Your task to perform on an android device: turn off picture-in-picture Image 0: 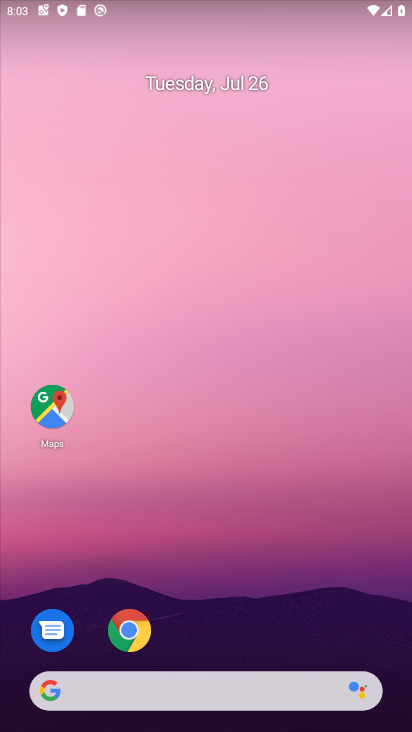
Step 0: drag from (317, 643) to (296, 2)
Your task to perform on an android device: turn off picture-in-picture Image 1: 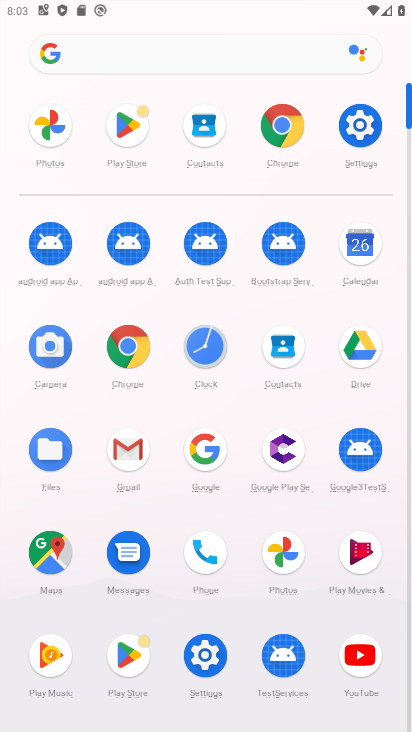
Step 1: click (338, 136)
Your task to perform on an android device: turn off picture-in-picture Image 2: 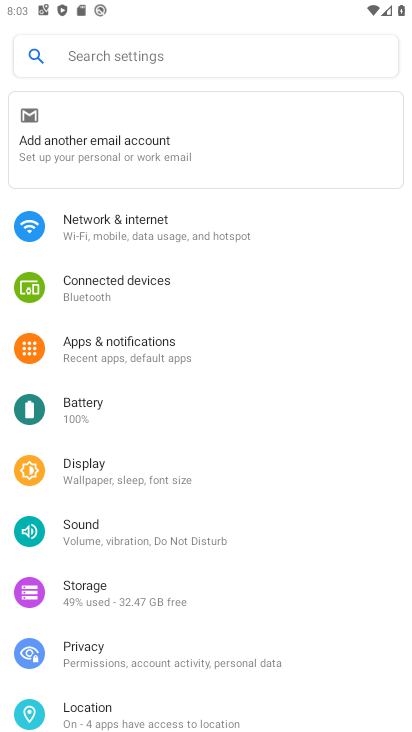
Step 2: click (162, 343)
Your task to perform on an android device: turn off picture-in-picture Image 3: 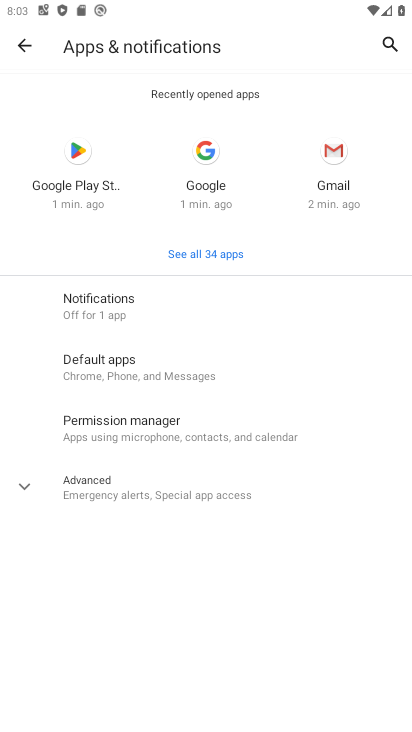
Step 3: click (118, 480)
Your task to perform on an android device: turn off picture-in-picture Image 4: 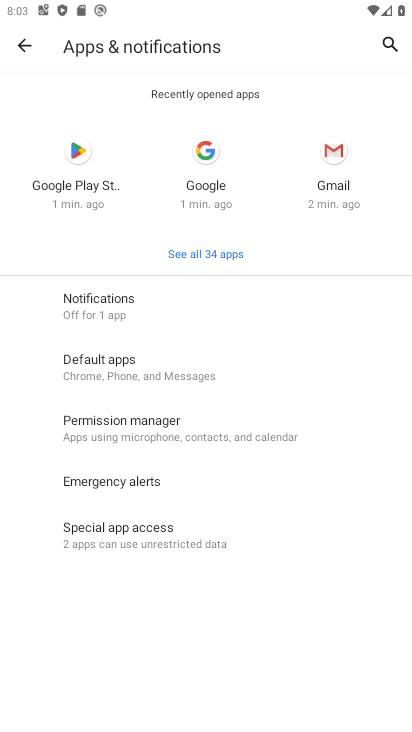
Step 4: click (156, 522)
Your task to perform on an android device: turn off picture-in-picture Image 5: 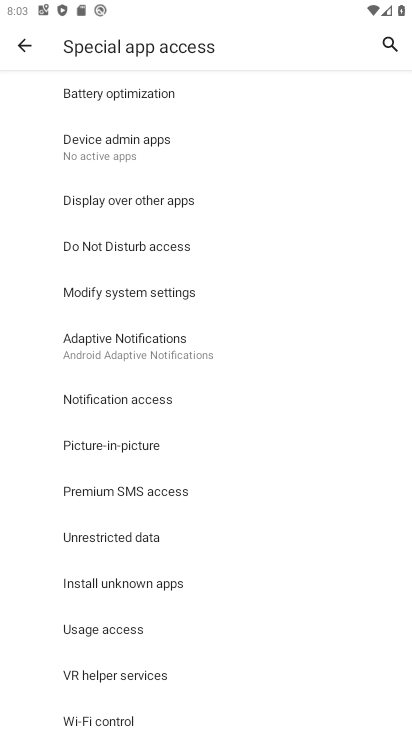
Step 5: click (155, 451)
Your task to perform on an android device: turn off picture-in-picture Image 6: 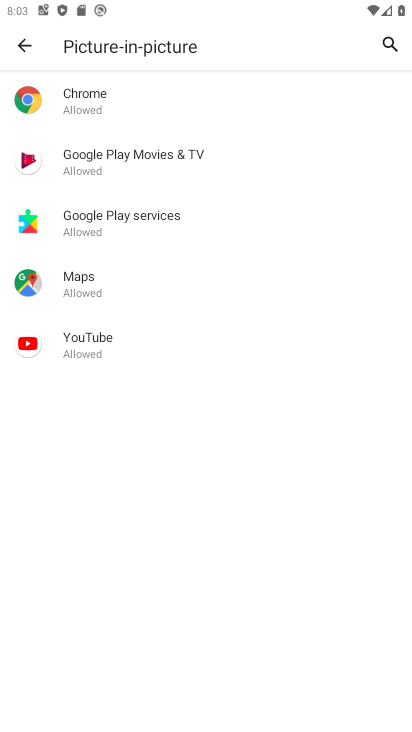
Step 6: task complete